Your task to perform on an android device: Open the calendar and show me this week's events? Image 0: 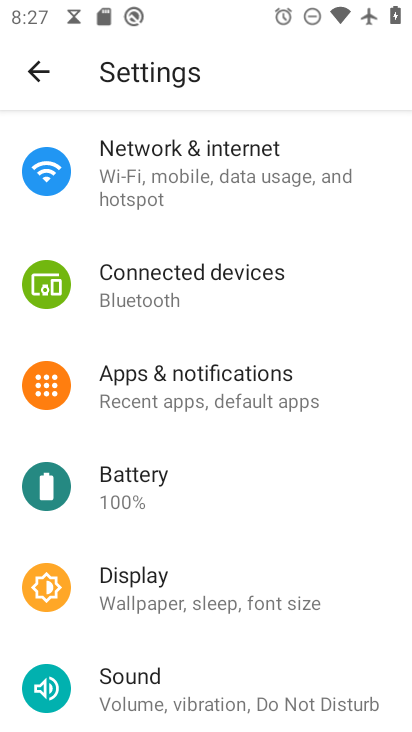
Step 0: press home button
Your task to perform on an android device: Open the calendar and show me this week's events? Image 1: 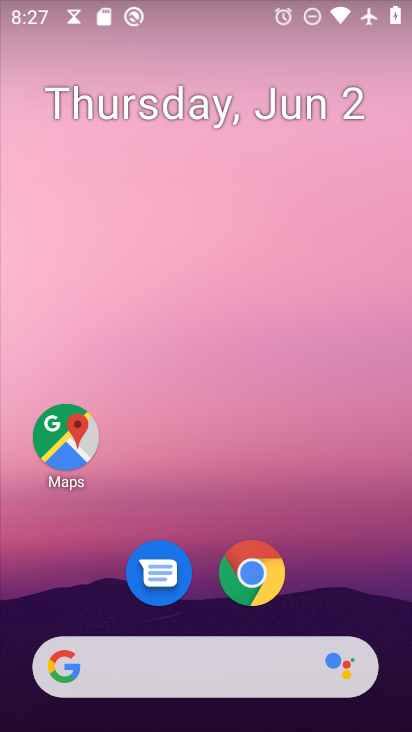
Step 1: drag from (188, 658) to (349, 160)
Your task to perform on an android device: Open the calendar and show me this week's events? Image 2: 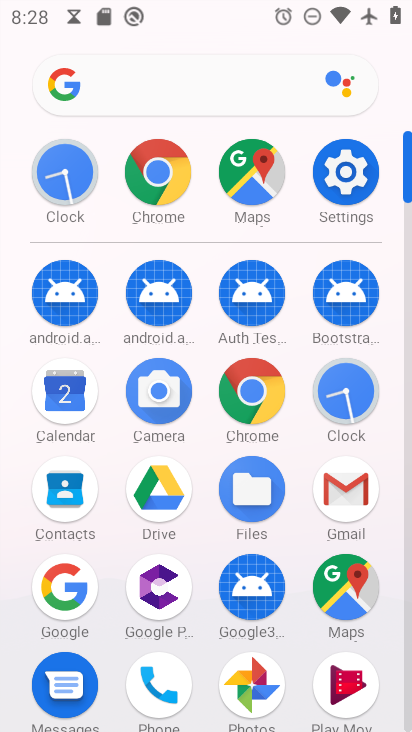
Step 2: click (72, 407)
Your task to perform on an android device: Open the calendar and show me this week's events? Image 3: 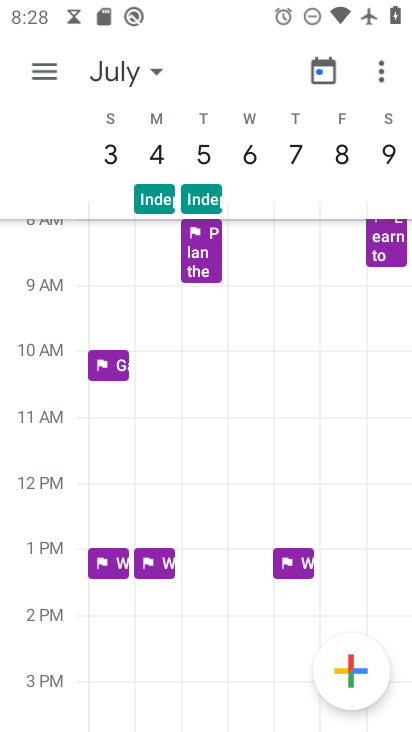
Step 3: click (127, 67)
Your task to perform on an android device: Open the calendar and show me this week's events? Image 4: 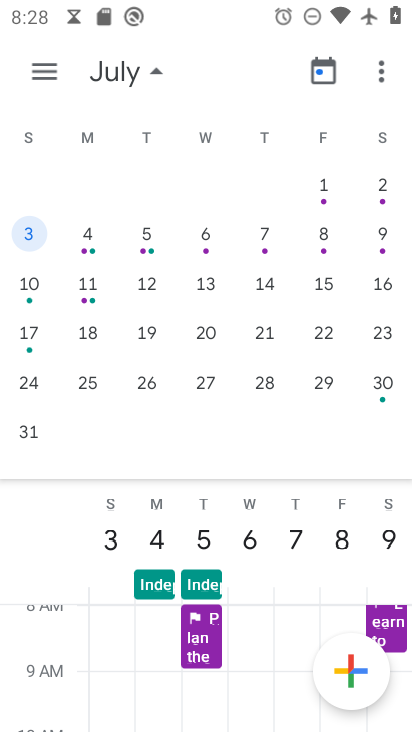
Step 4: drag from (35, 335) to (409, 384)
Your task to perform on an android device: Open the calendar and show me this week's events? Image 5: 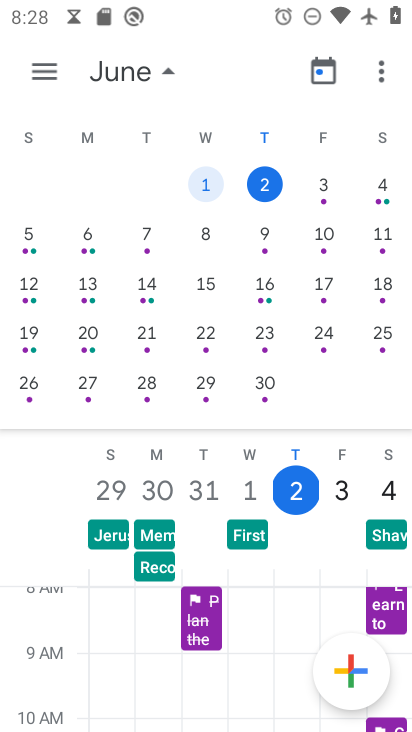
Step 5: click (321, 184)
Your task to perform on an android device: Open the calendar and show me this week's events? Image 6: 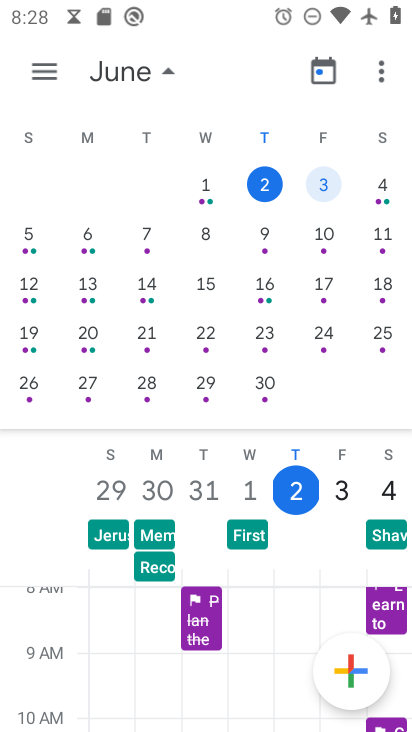
Step 6: click (273, 185)
Your task to perform on an android device: Open the calendar and show me this week's events? Image 7: 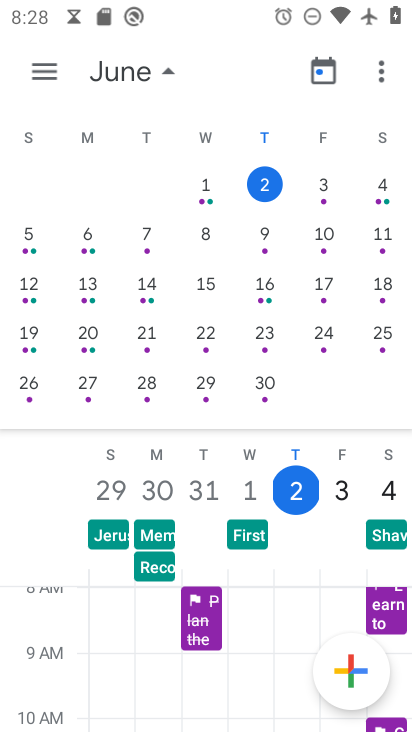
Step 7: click (42, 77)
Your task to perform on an android device: Open the calendar and show me this week's events? Image 8: 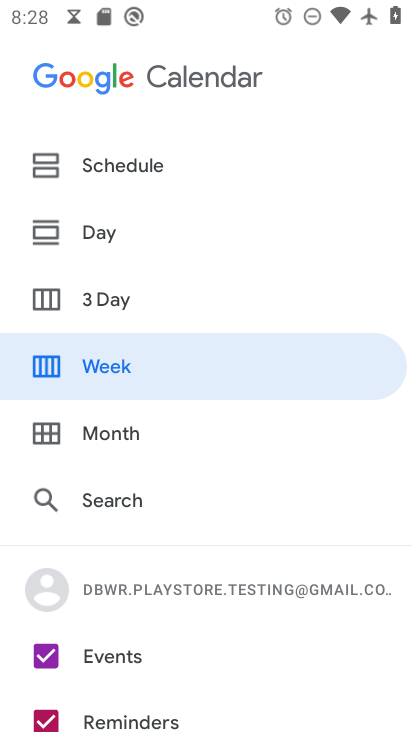
Step 8: click (102, 363)
Your task to perform on an android device: Open the calendar and show me this week's events? Image 9: 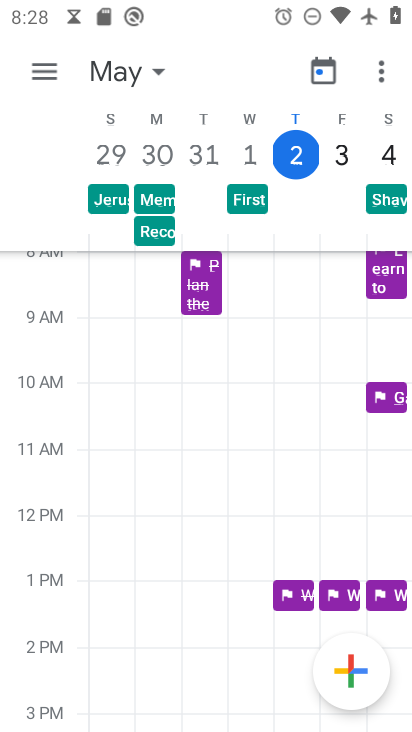
Step 9: click (36, 72)
Your task to perform on an android device: Open the calendar and show me this week's events? Image 10: 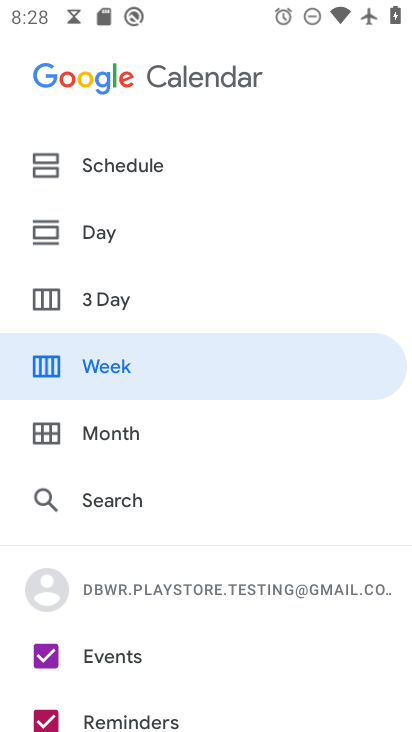
Step 10: click (106, 163)
Your task to perform on an android device: Open the calendar and show me this week's events? Image 11: 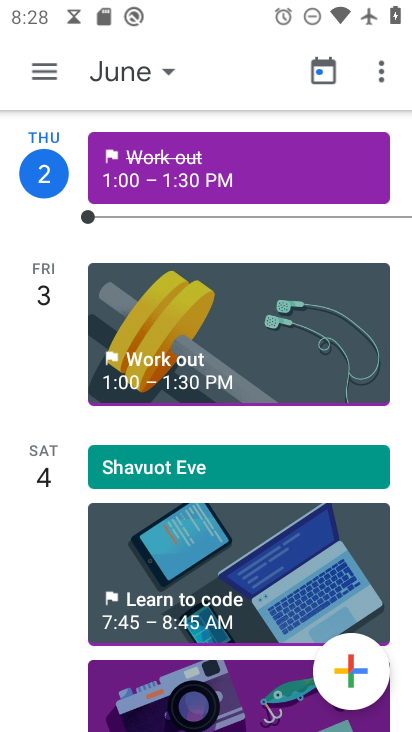
Step 11: drag from (173, 523) to (351, 145)
Your task to perform on an android device: Open the calendar and show me this week's events? Image 12: 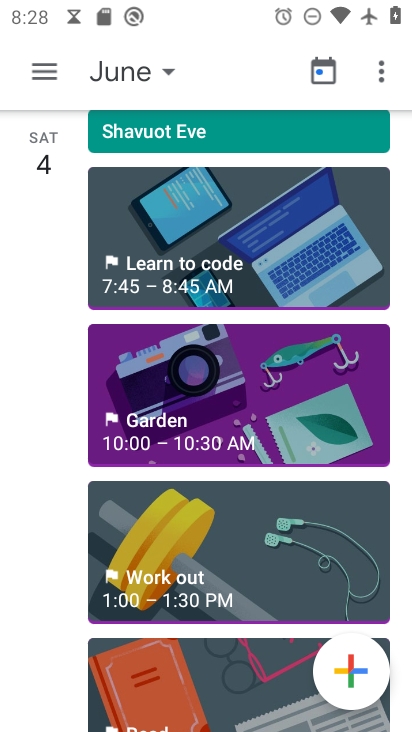
Step 12: click (233, 414)
Your task to perform on an android device: Open the calendar and show me this week's events? Image 13: 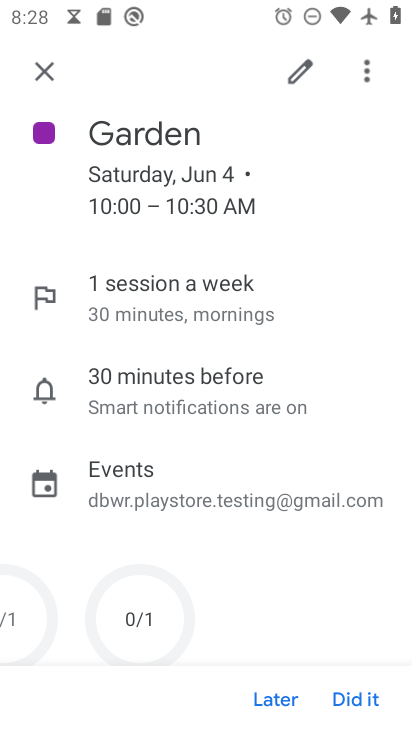
Step 13: task complete